Your task to perform on an android device: Go to display settings Image 0: 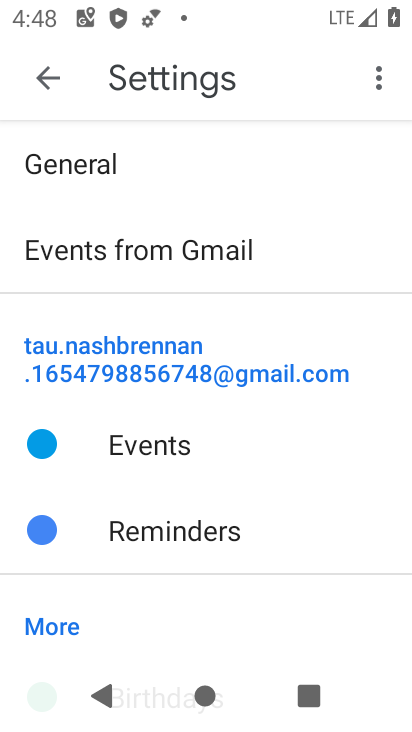
Step 0: press home button
Your task to perform on an android device: Go to display settings Image 1: 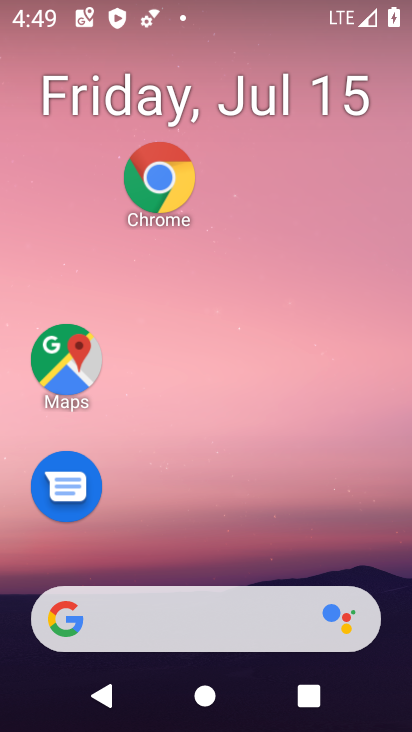
Step 1: drag from (266, 517) to (225, 182)
Your task to perform on an android device: Go to display settings Image 2: 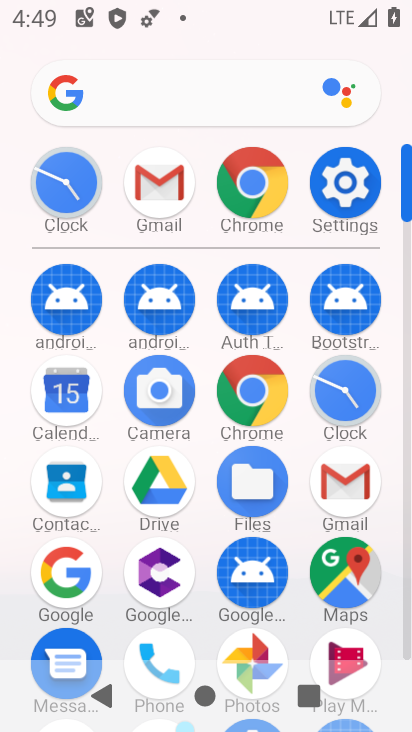
Step 2: click (345, 195)
Your task to perform on an android device: Go to display settings Image 3: 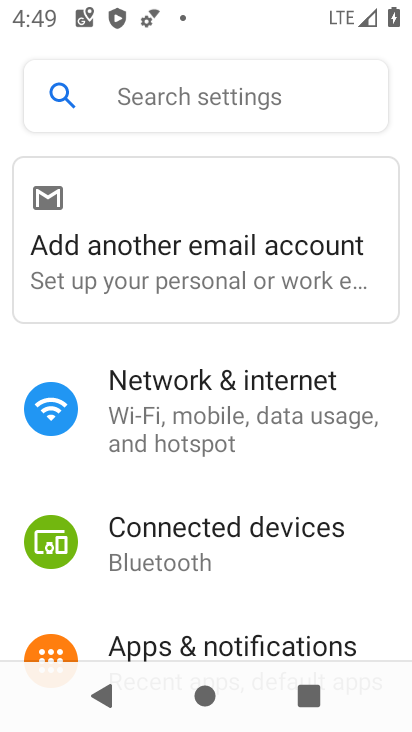
Step 3: drag from (214, 580) to (181, 135)
Your task to perform on an android device: Go to display settings Image 4: 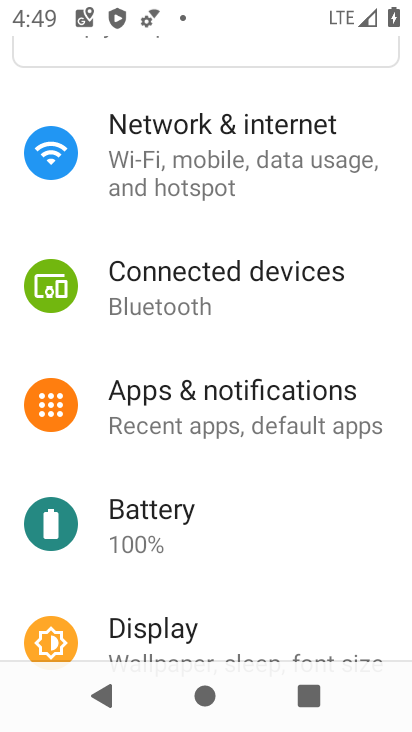
Step 4: click (156, 644)
Your task to perform on an android device: Go to display settings Image 5: 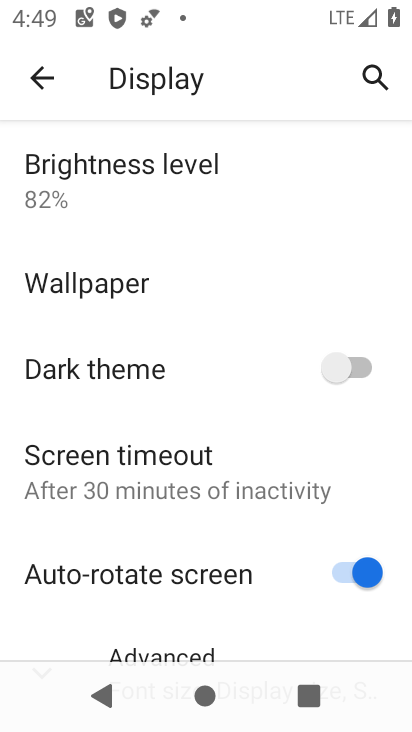
Step 5: task complete